Your task to perform on an android device: Do I have any events this weekend? Image 0: 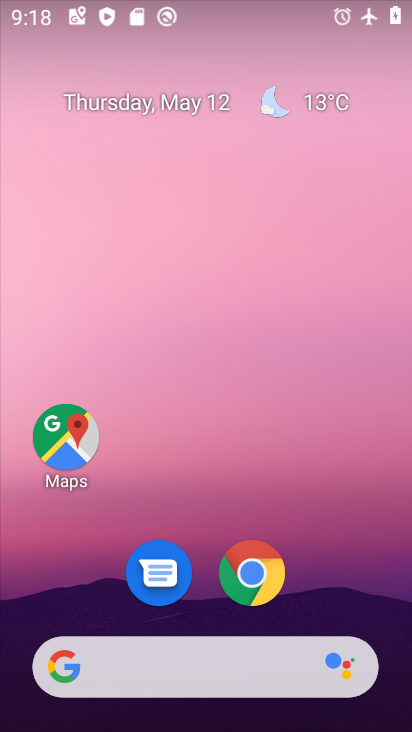
Step 0: drag from (389, 664) to (316, 262)
Your task to perform on an android device: Do I have any events this weekend? Image 1: 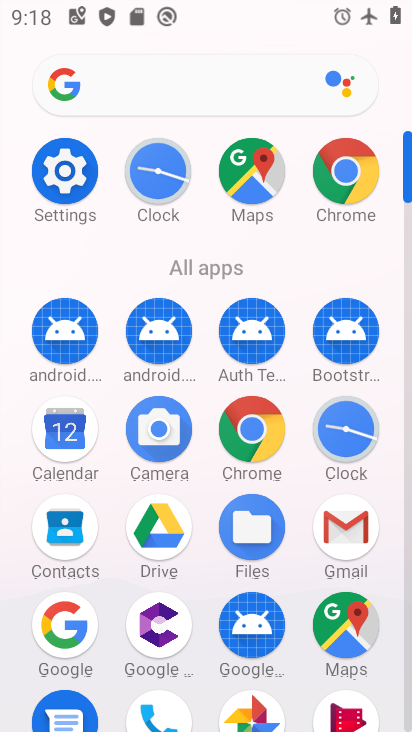
Step 1: click (64, 429)
Your task to perform on an android device: Do I have any events this weekend? Image 2: 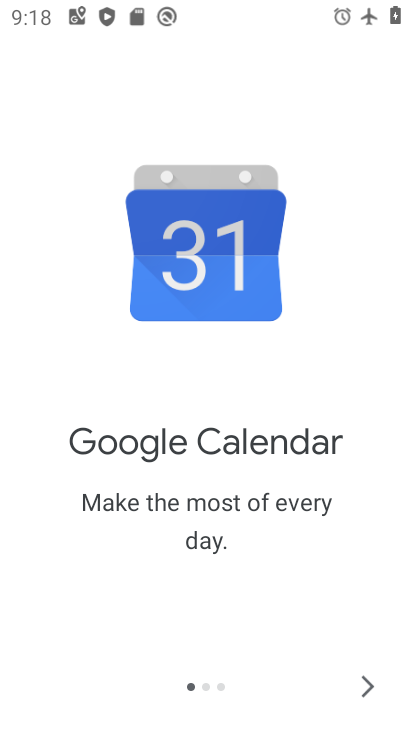
Step 2: click (364, 679)
Your task to perform on an android device: Do I have any events this weekend? Image 3: 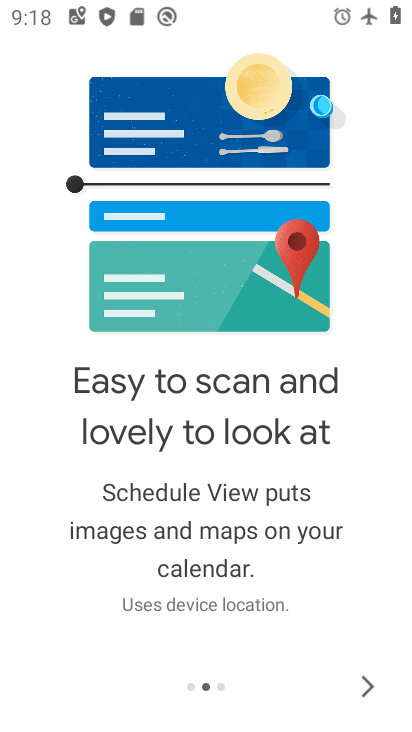
Step 3: click (364, 679)
Your task to perform on an android device: Do I have any events this weekend? Image 4: 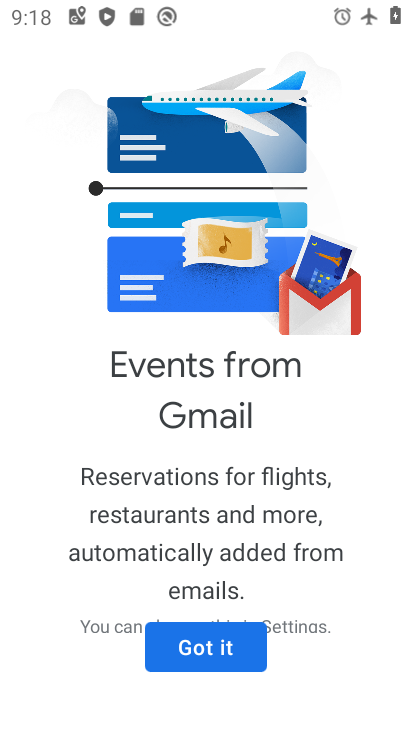
Step 4: click (219, 653)
Your task to perform on an android device: Do I have any events this weekend? Image 5: 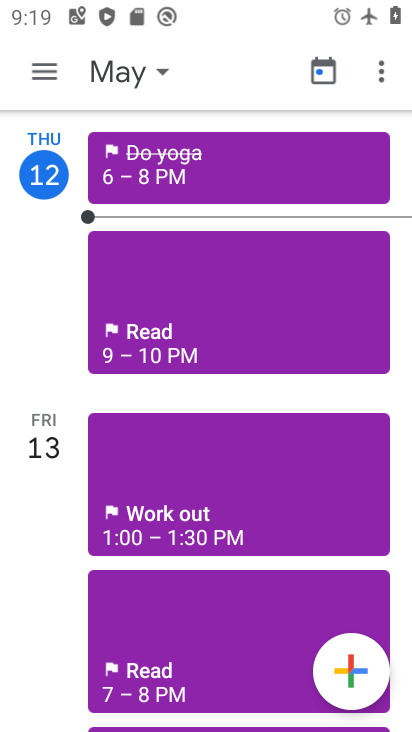
Step 5: click (163, 75)
Your task to perform on an android device: Do I have any events this weekend? Image 6: 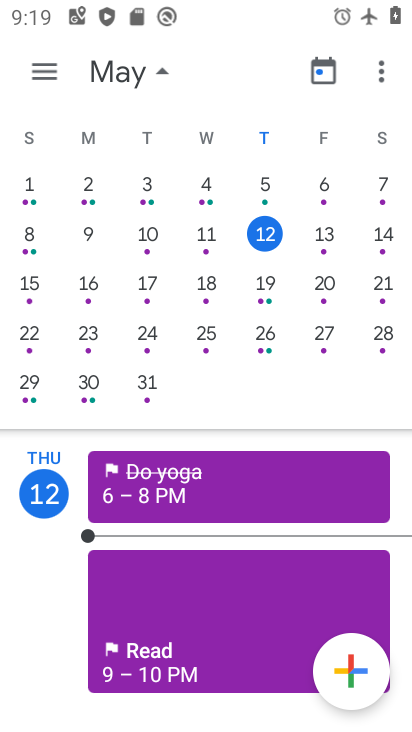
Step 6: click (267, 230)
Your task to perform on an android device: Do I have any events this weekend? Image 7: 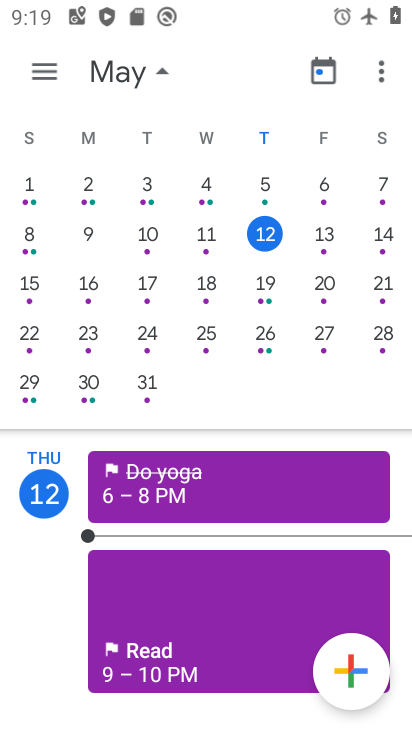
Step 7: click (43, 74)
Your task to perform on an android device: Do I have any events this weekend? Image 8: 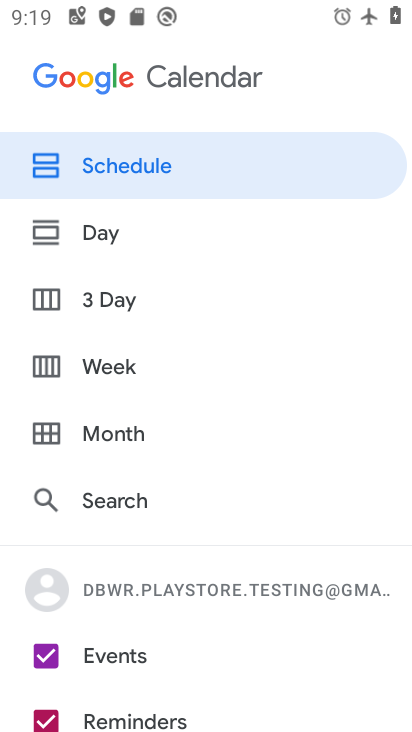
Step 8: click (111, 358)
Your task to perform on an android device: Do I have any events this weekend? Image 9: 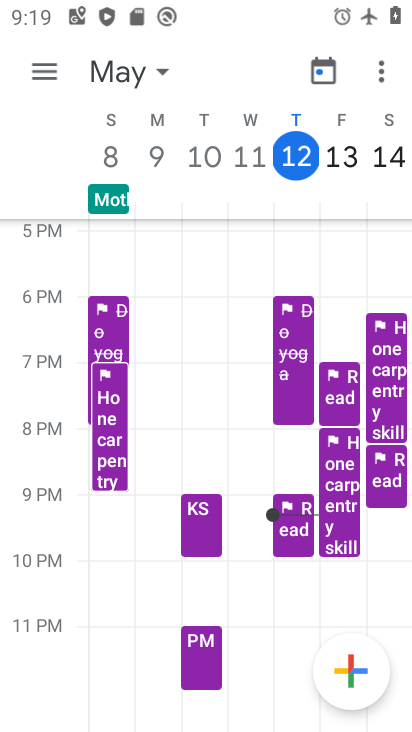
Step 9: task complete